Your task to perform on an android device: Go to Maps Image 0: 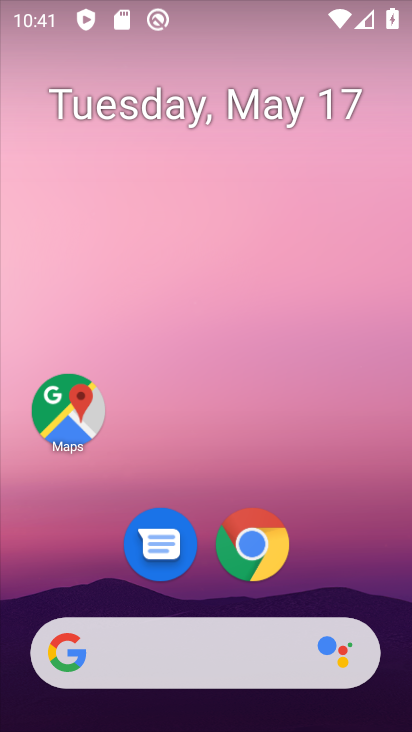
Step 0: drag from (251, 621) to (275, 18)
Your task to perform on an android device: Go to Maps Image 1: 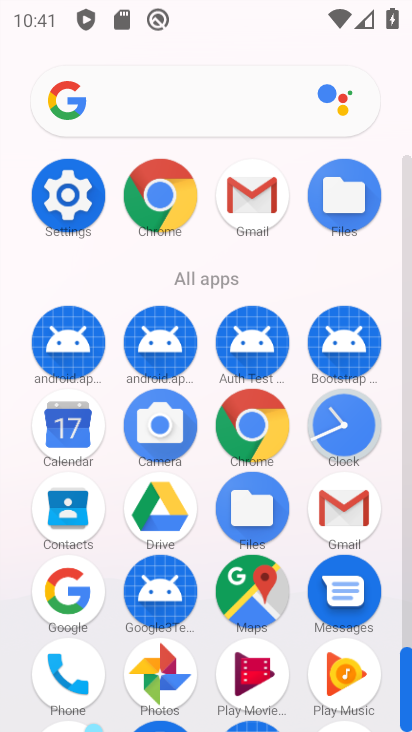
Step 1: click (251, 610)
Your task to perform on an android device: Go to Maps Image 2: 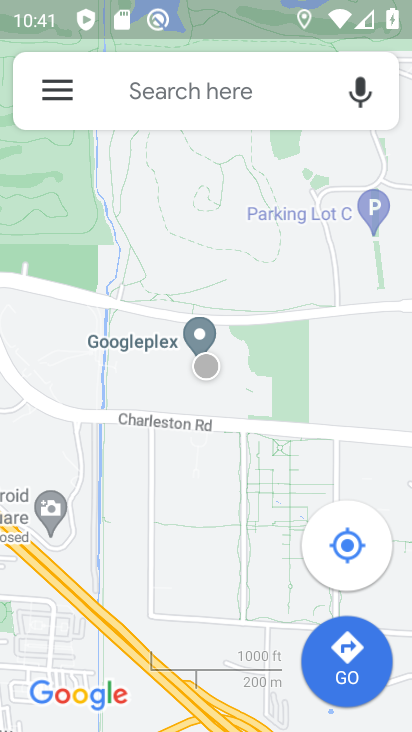
Step 2: task complete